Your task to perform on an android device: open a new tab in the chrome app Image 0: 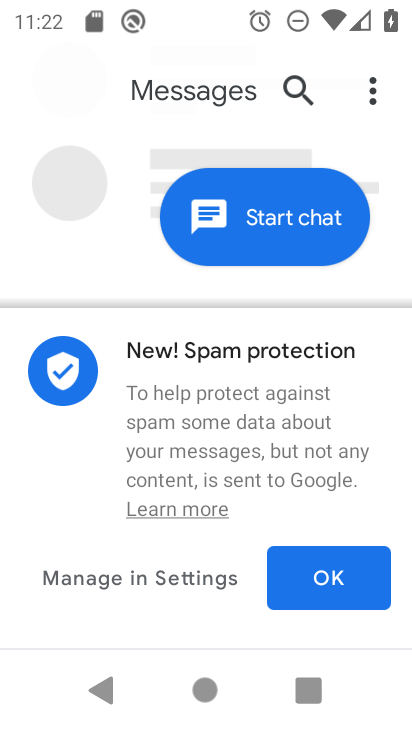
Step 0: press home button
Your task to perform on an android device: open a new tab in the chrome app Image 1: 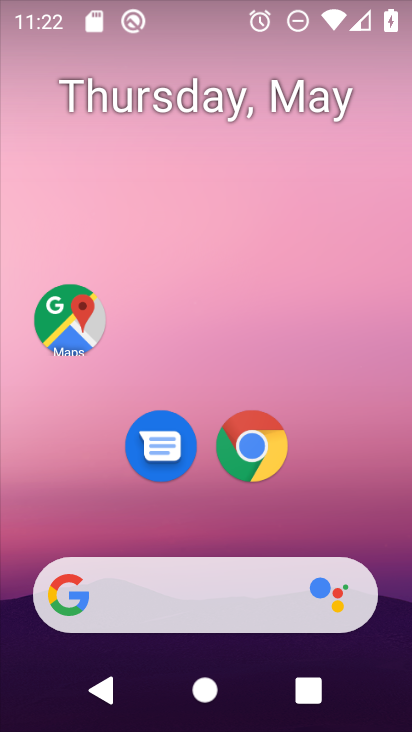
Step 1: drag from (271, 660) to (268, 201)
Your task to perform on an android device: open a new tab in the chrome app Image 2: 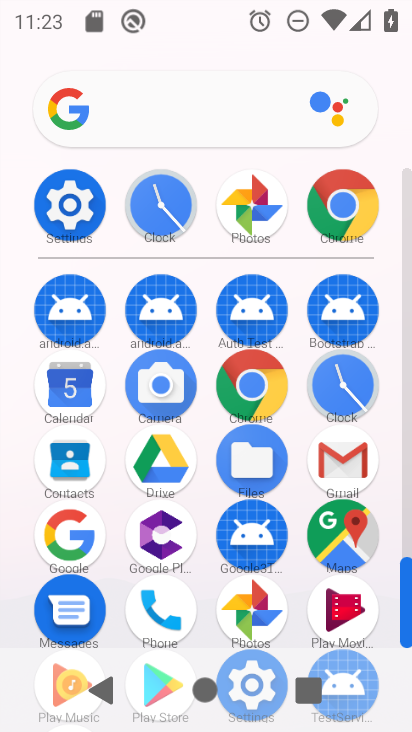
Step 2: click (357, 216)
Your task to perform on an android device: open a new tab in the chrome app Image 3: 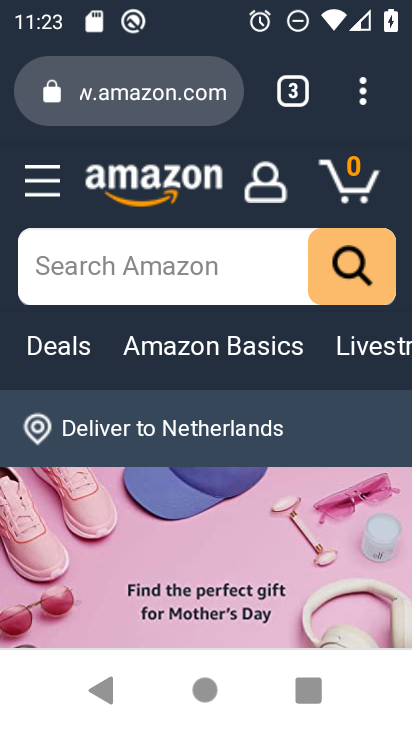
Step 3: click (349, 98)
Your task to perform on an android device: open a new tab in the chrome app Image 4: 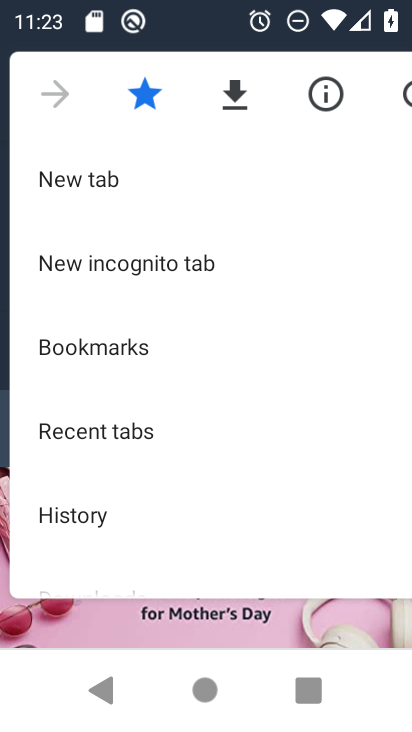
Step 4: click (120, 173)
Your task to perform on an android device: open a new tab in the chrome app Image 5: 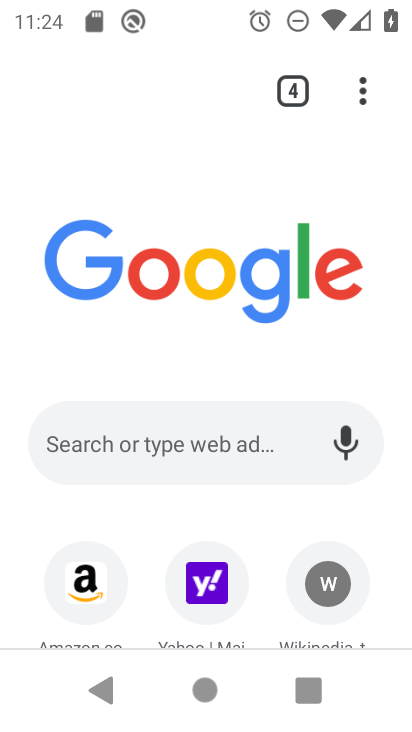
Step 5: click (352, 112)
Your task to perform on an android device: open a new tab in the chrome app Image 6: 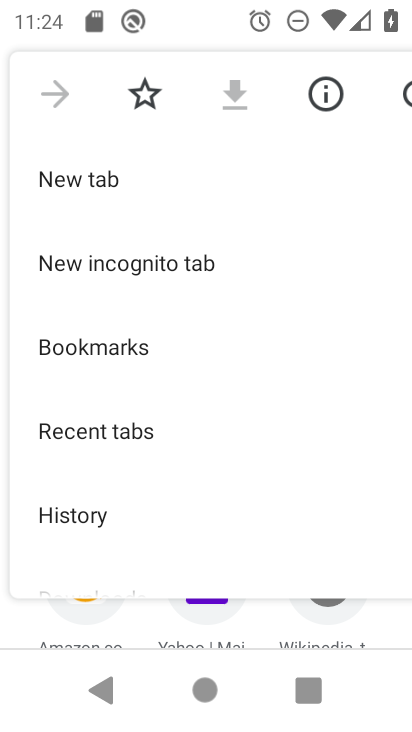
Step 6: click (220, 186)
Your task to perform on an android device: open a new tab in the chrome app Image 7: 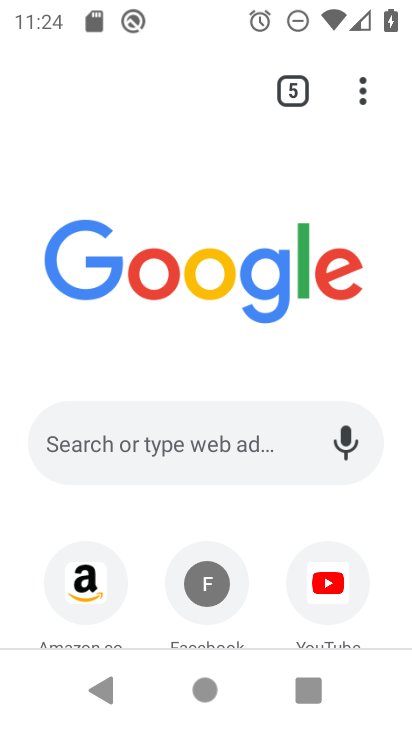
Step 7: task complete